Your task to perform on an android device: open a bookmark in the chrome app Image 0: 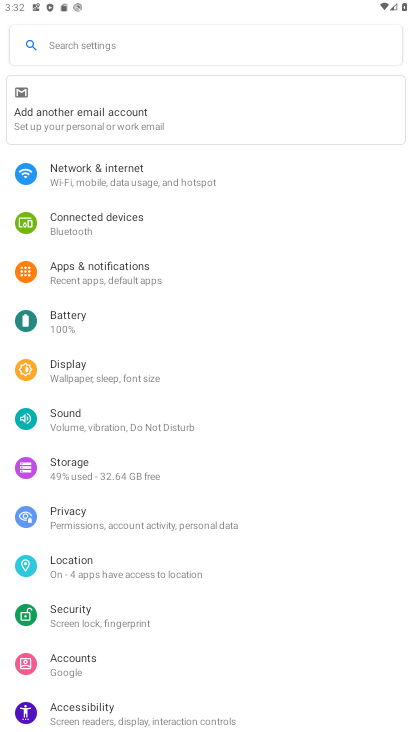
Step 0: press home button
Your task to perform on an android device: open a bookmark in the chrome app Image 1: 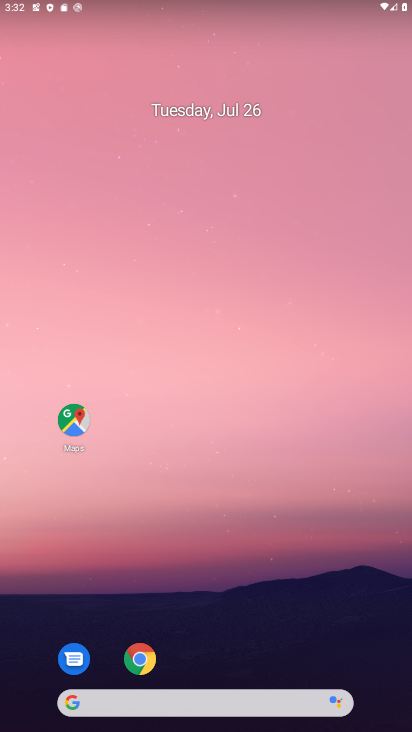
Step 1: click (144, 660)
Your task to perform on an android device: open a bookmark in the chrome app Image 2: 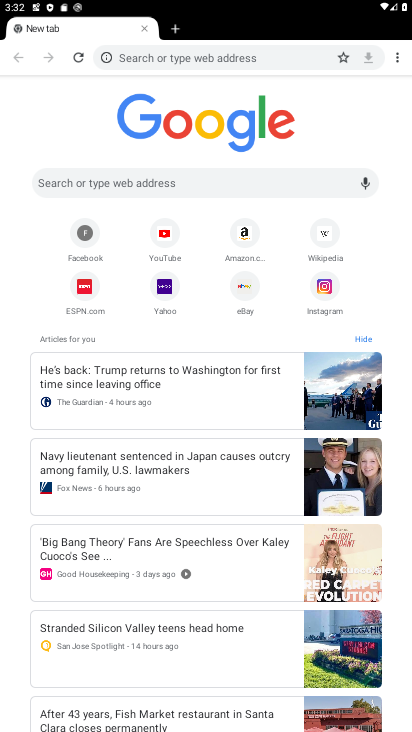
Step 2: click (397, 60)
Your task to perform on an android device: open a bookmark in the chrome app Image 3: 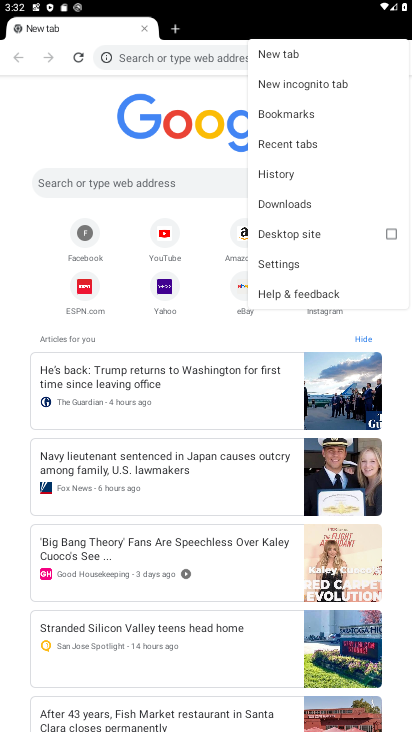
Step 3: click (293, 114)
Your task to perform on an android device: open a bookmark in the chrome app Image 4: 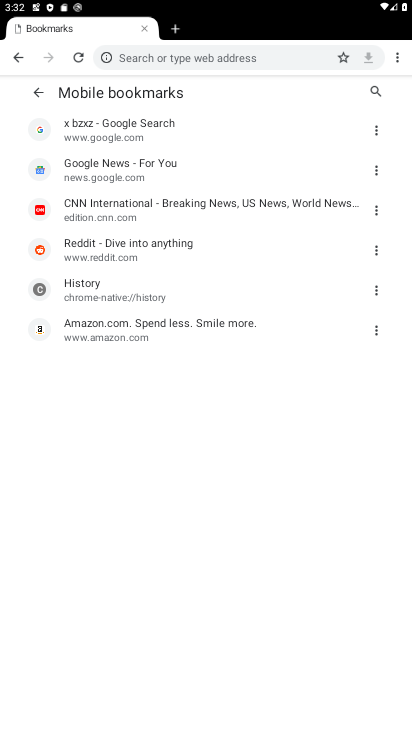
Step 4: click (378, 167)
Your task to perform on an android device: open a bookmark in the chrome app Image 5: 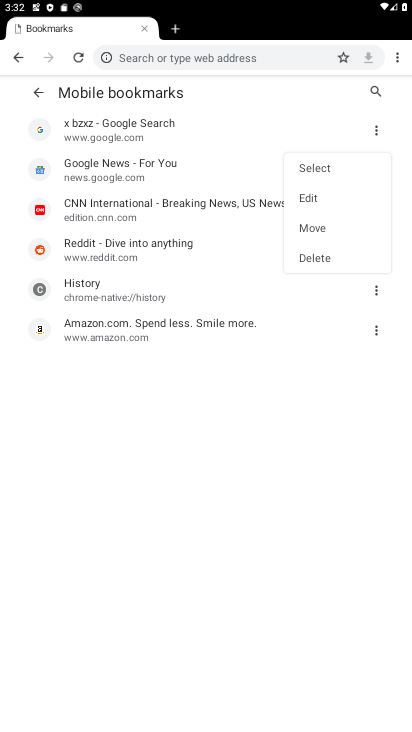
Step 5: click (334, 256)
Your task to perform on an android device: open a bookmark in the chrome app Image 6: 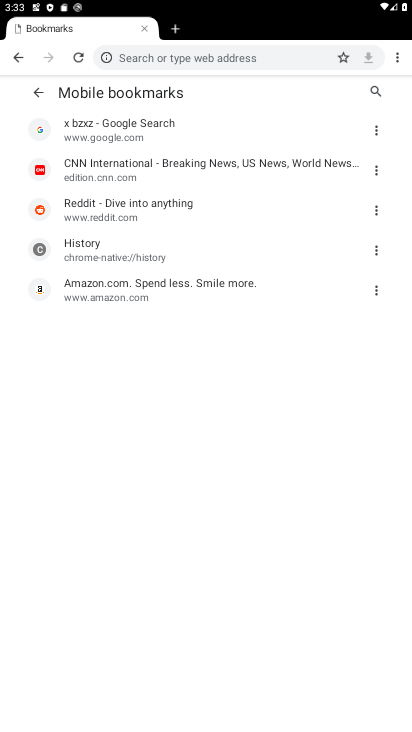
Step 6: task complete